Your task to perform on an android device: Search for the best 4k TVs Image 0: 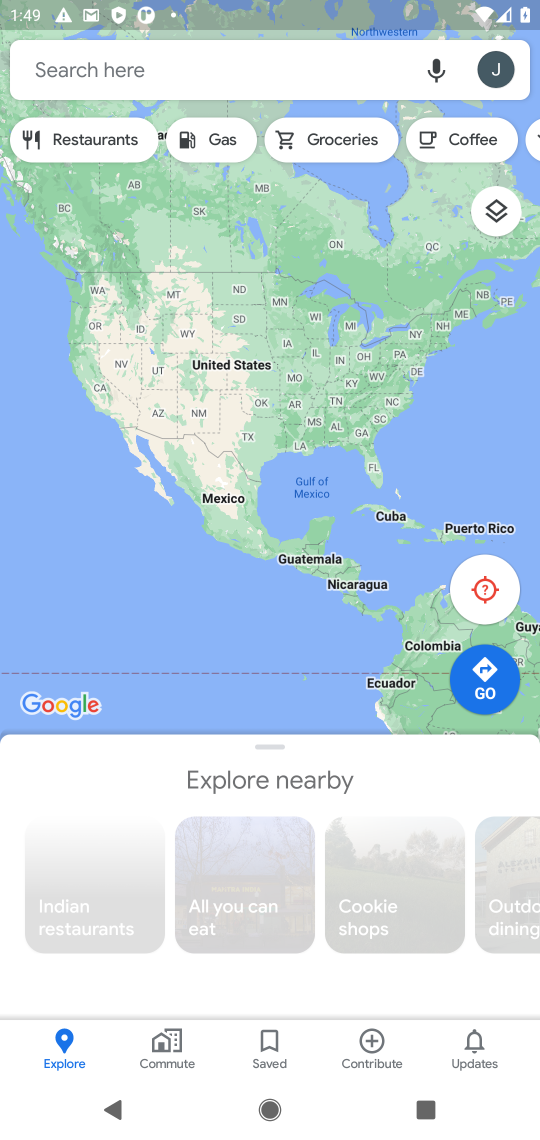
Step 0: press home button
Your task to perform on an android device: Search for the best 4k TVs Image 1: 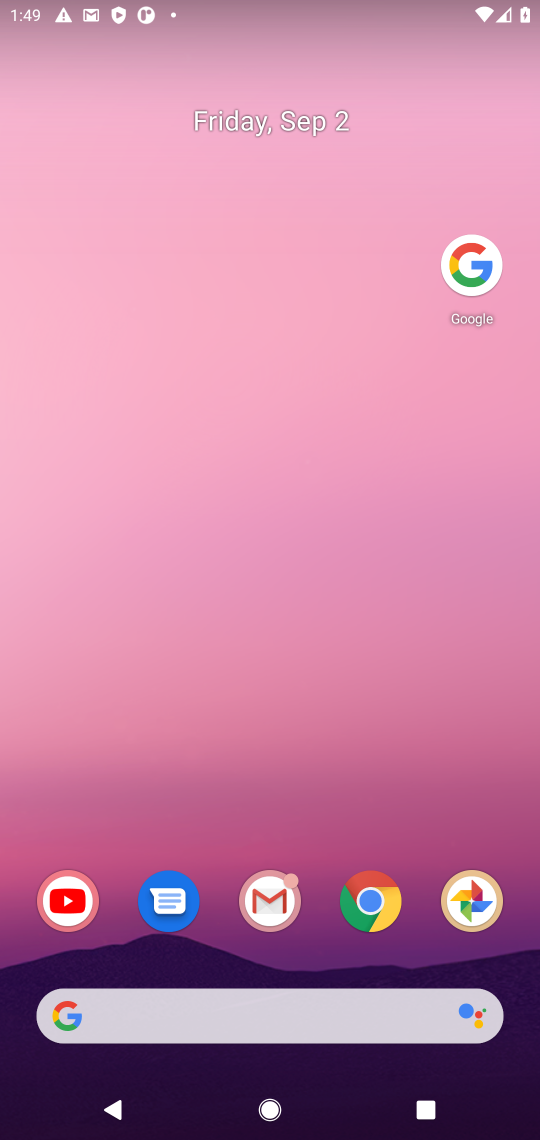
Step 1: click (492, 258)
Your task to perform on an android device: Search for the best 4k TVs Image 2: 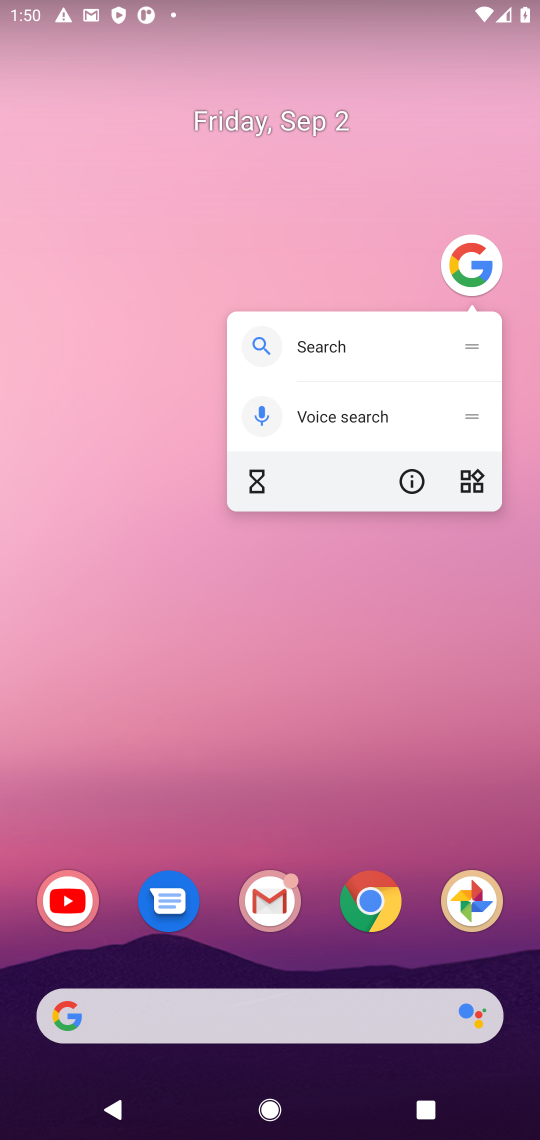
Step 2: click (484, 255)
Your task to perform on an android device: Search for the best 4k TVs Image 3: 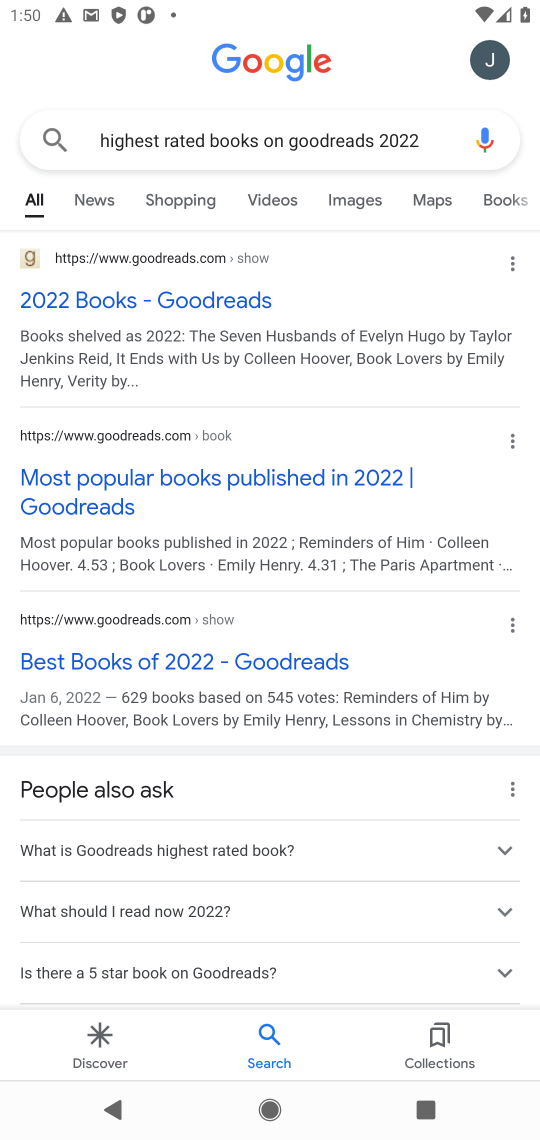
Step 3: click (430, 136)
Your task to perform on an android device: Search for the best 4k TVs Image 4: 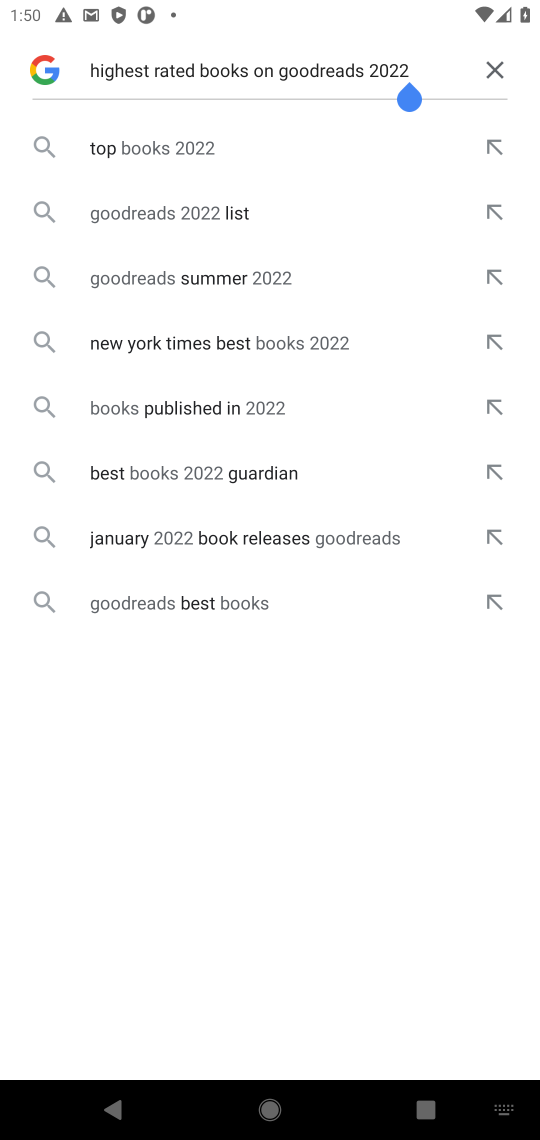
Step 4: click (513, 60)
Your task to perform on an android device: Search for the best 4k TVs Image 5: 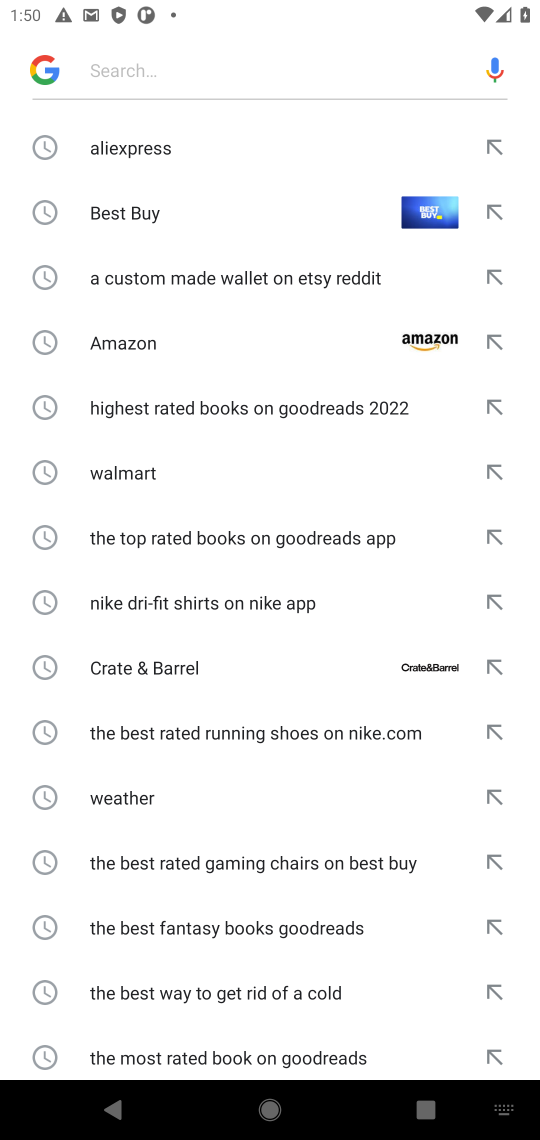
Step 5: click (283, 69)
Your task to perform on an android device: Search for the best 4k TVs Image 6: 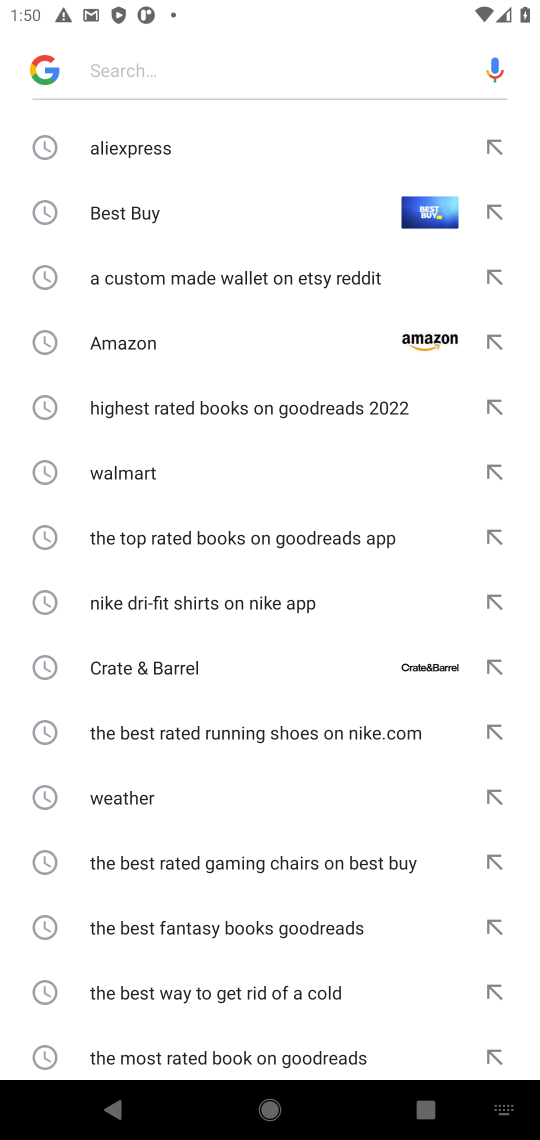
Step 6: type "the best 4k TVs "
Your task to perform on an android device: Search for the best 4k TVs Image 7: 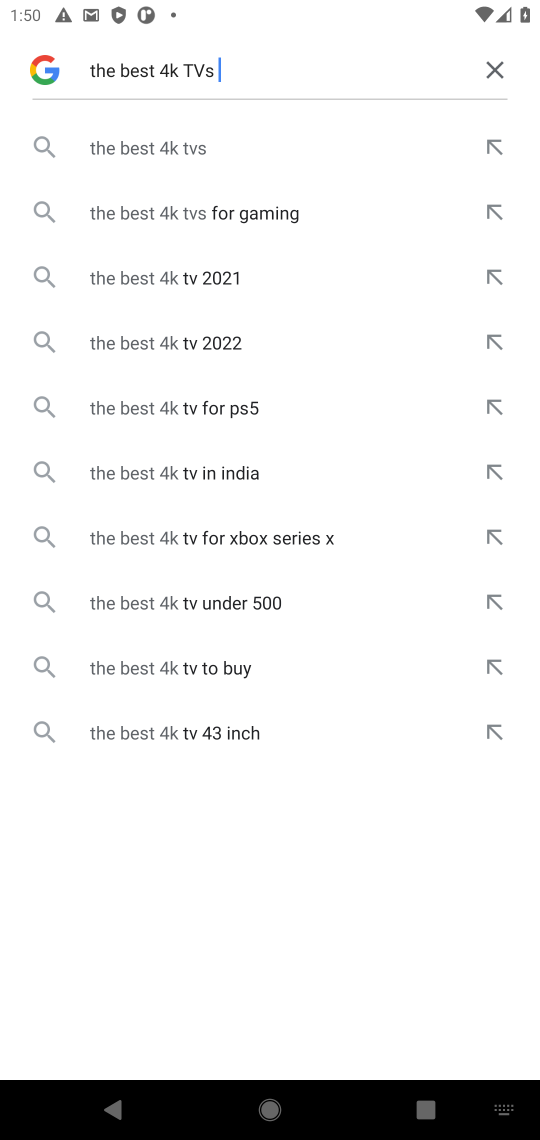
Step 7: click (145, 164)
Your task to perform on an android device: Search for the best 4k TVs Image 8: 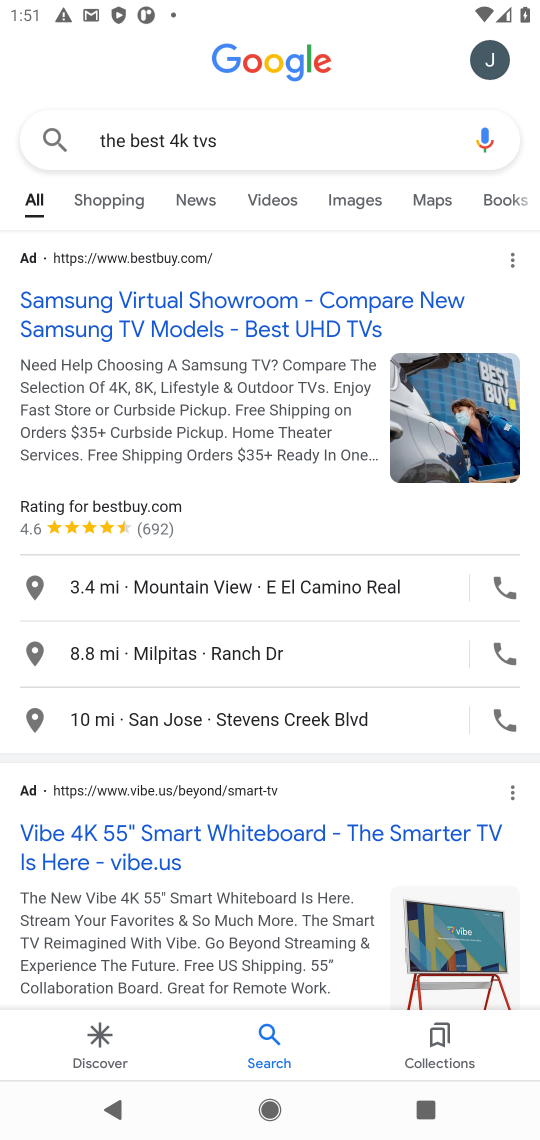
Step 8: click (150, 858)
Your task to perform on an android device: Search for the best 4k TVs Image 9: 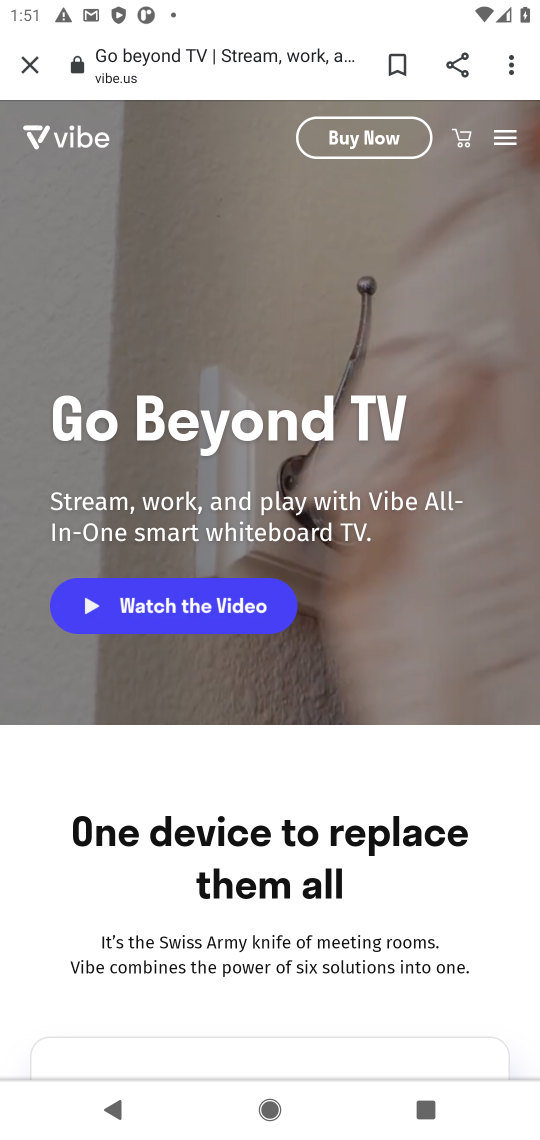
Step 9: task complete